Your task to perform on an android device: Go to privacy settings Image 0: 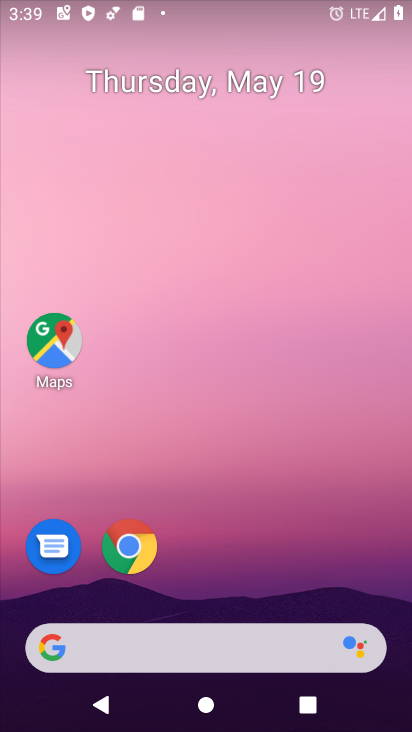
Step 0: press home button
Your task to perform on an android device: Go to privacy settings Image 1: 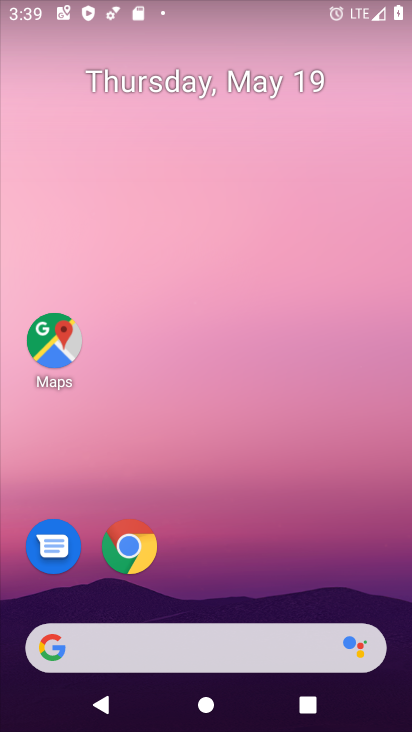
Step 1: drag from (215, 614) to (237, 50)
Your task to perform on an android device: Go to privacy settings Image 2: 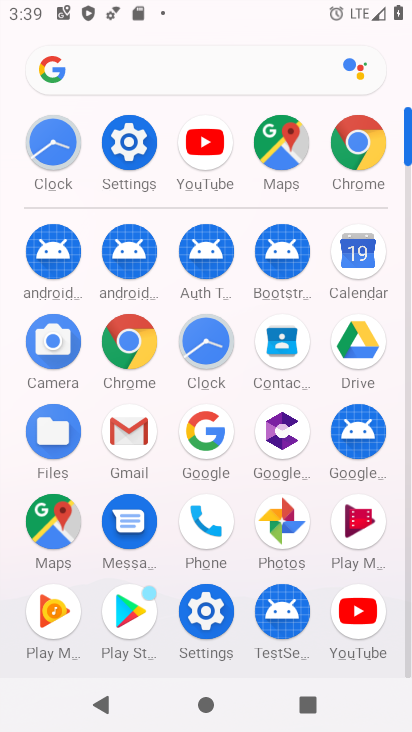
Step 2: click (124, 132)
Your task to perform on an android device: Go to privacy settings Image 3: 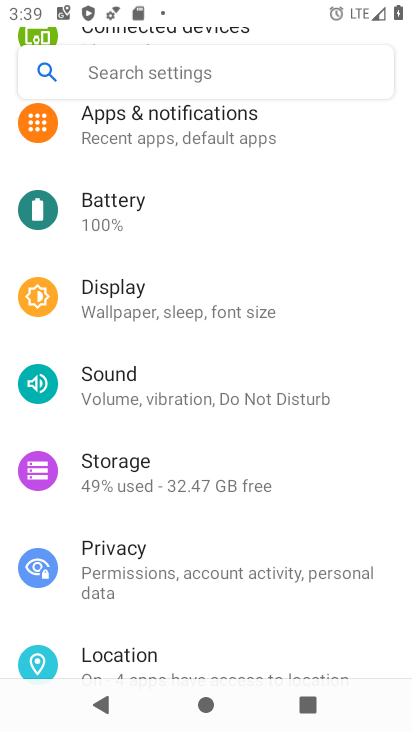
Step 3: click (182, 550)
Your task to perform on an android device: Go to privacy settings Image 4: 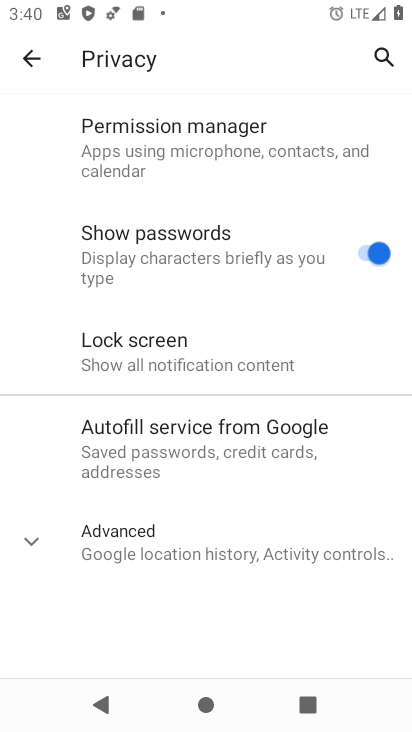
Step 4: click (40, 543)
Your task to perform on an android device: Go to privacy settings Image 5: 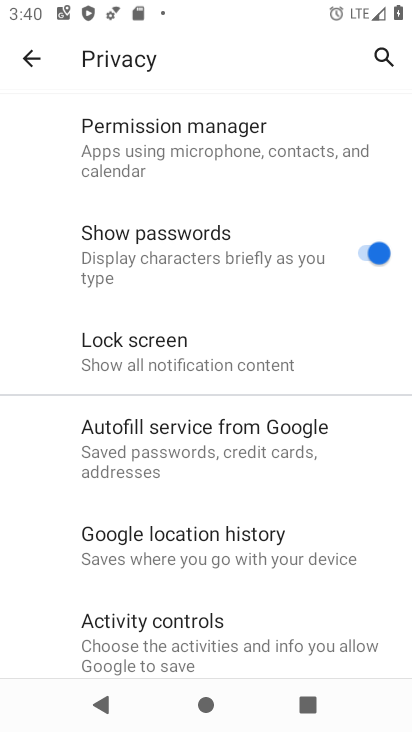
Step 5: task complete